Your task to perform on an android device: uninstall "Gboard" Image 0: 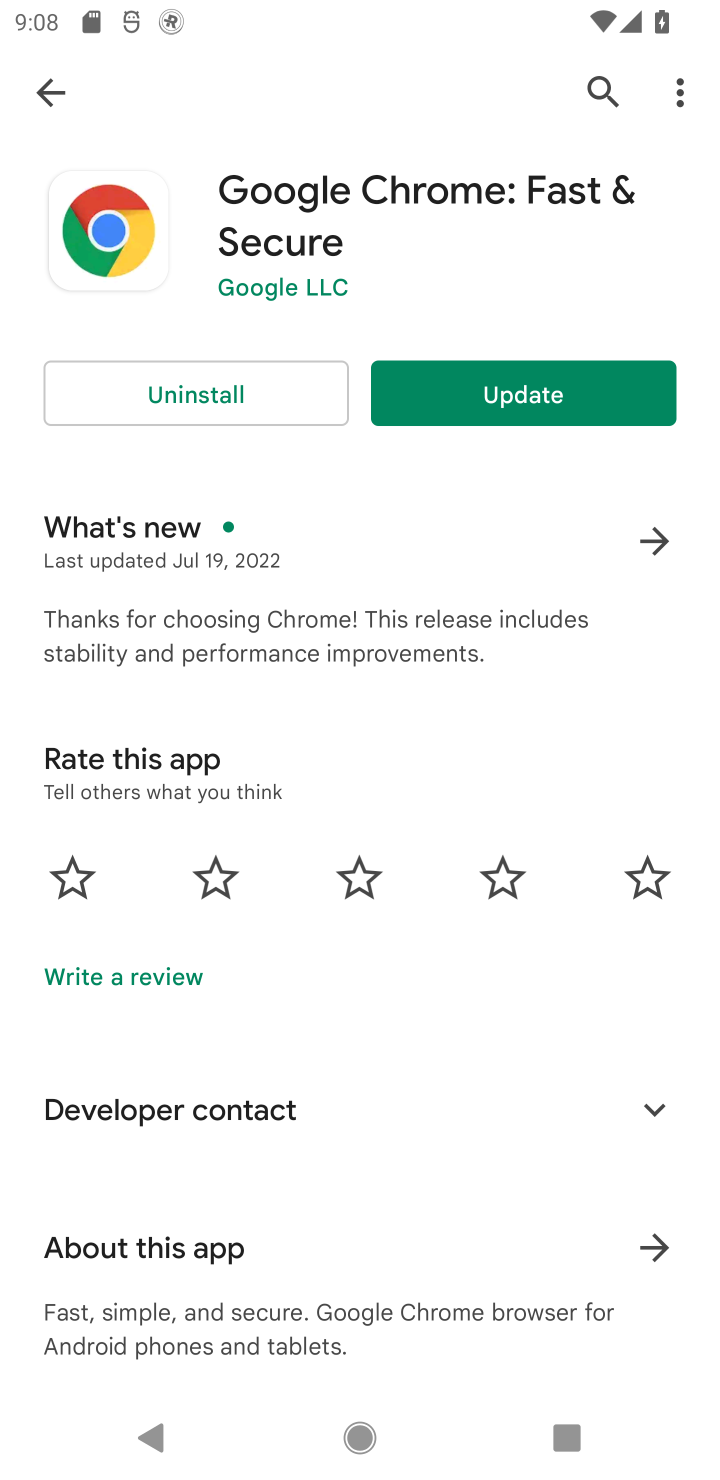
Step 0: click (586, 88)
Your task to perform on an android device: uninstall "Gboard" Image 1: 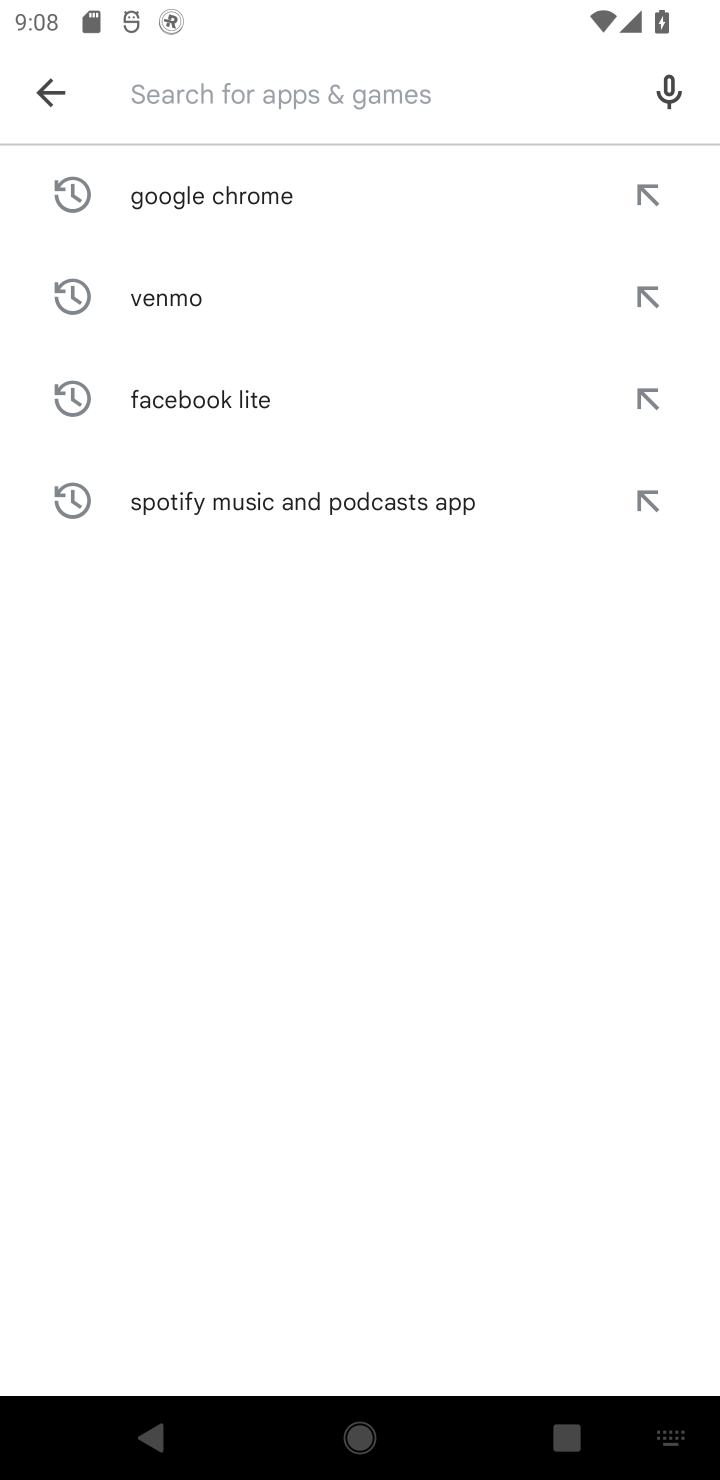
Step 1: type "Gboard"
Your task to perform on an android device: uninstall "Gboard" Image 2: 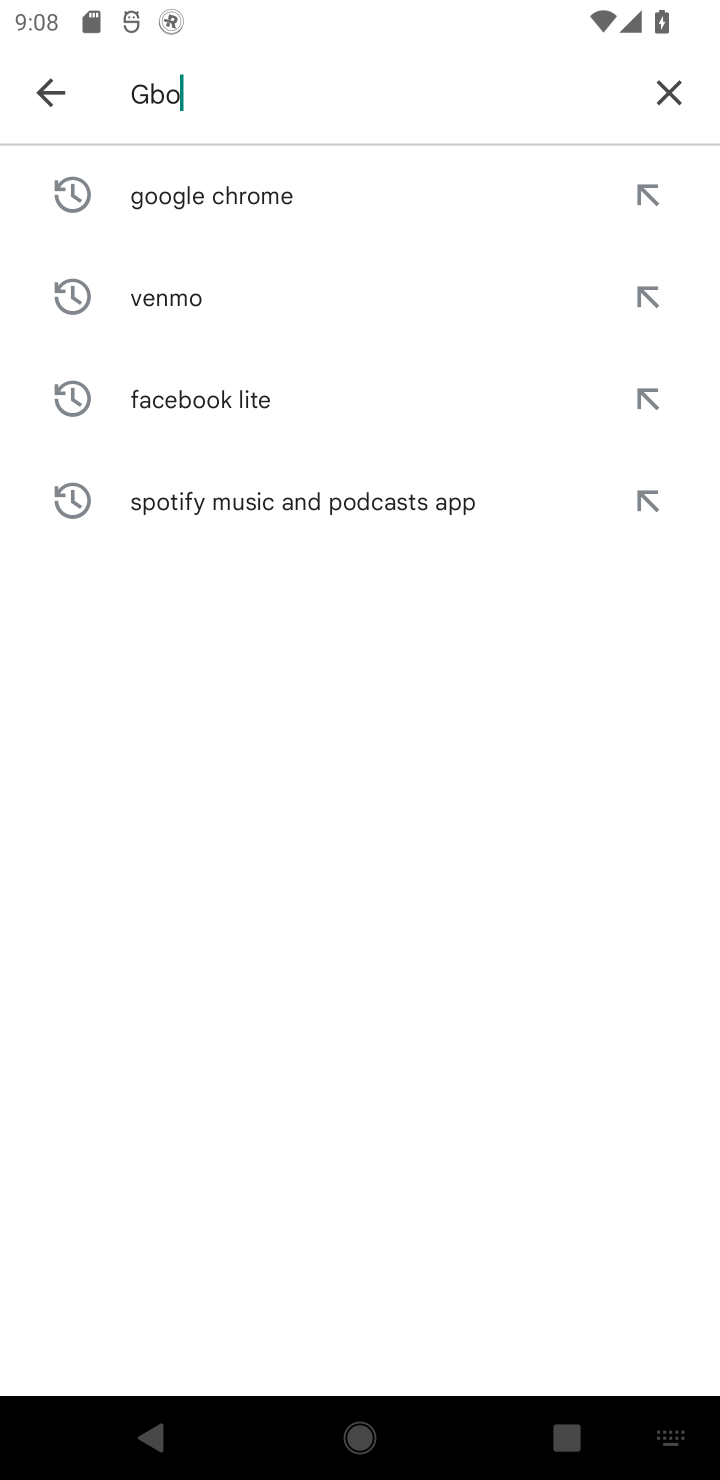
Step 2: type ""
Your task to perform on an android device: uninstall "Gboard" Image 3: 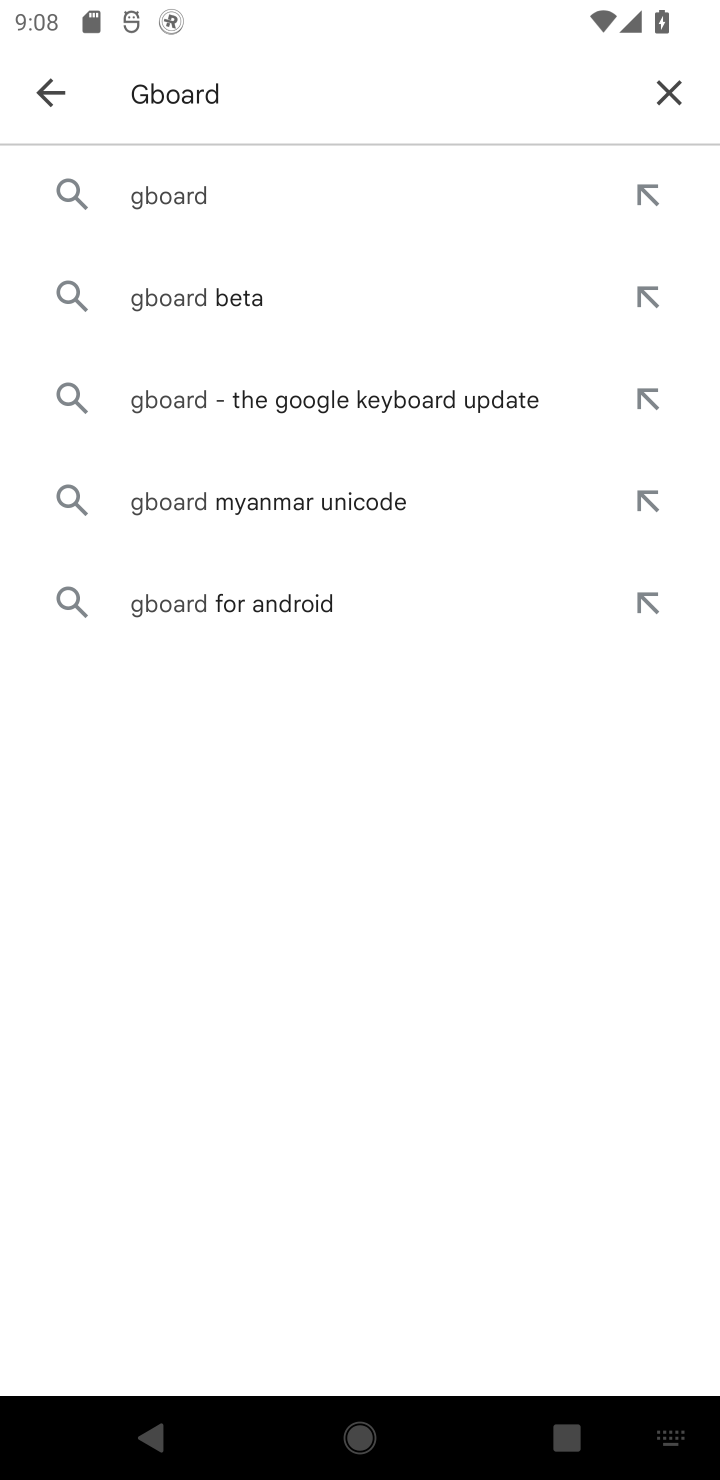
Step 3: click (220, 192)
Your task to perform on an android device: uninstall "Gboard" Image 4: 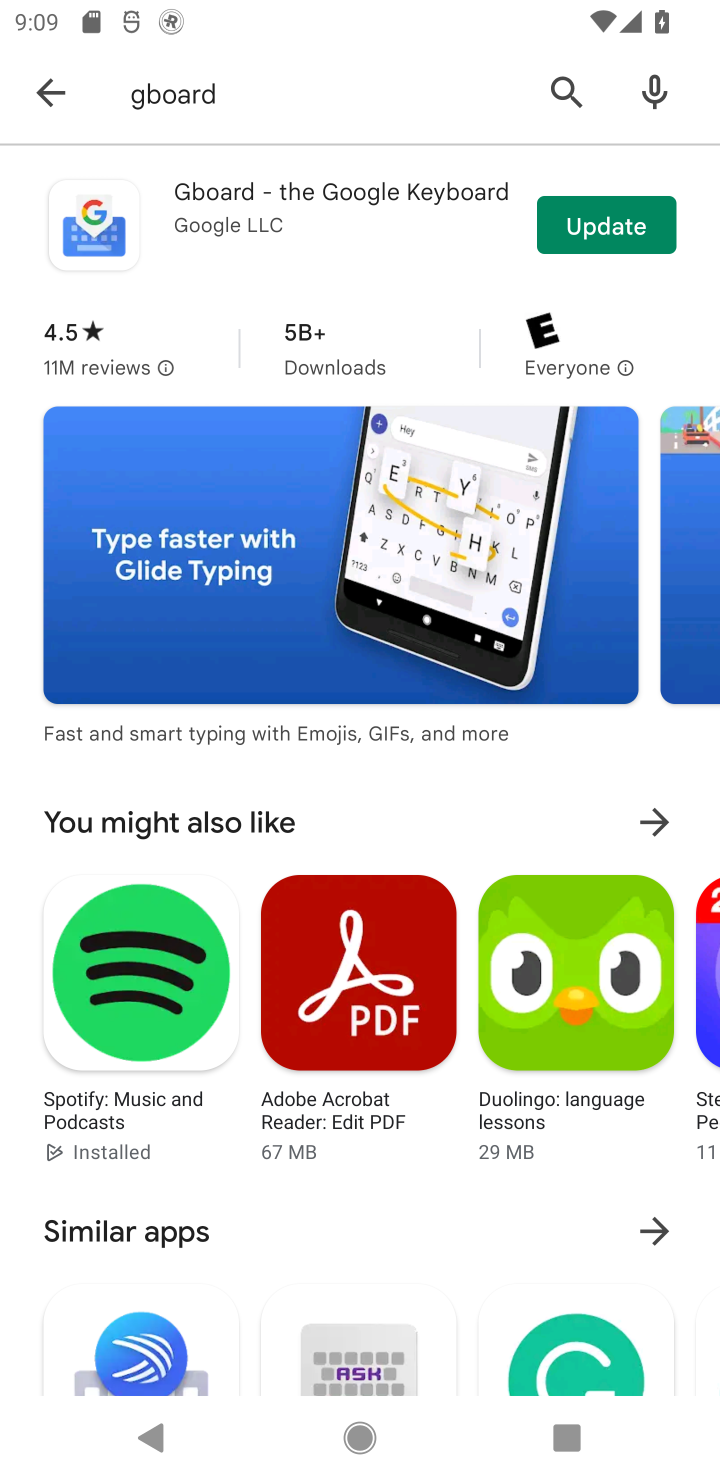
Step 4: click (306, 194)
Your task to perform on an android device: uninstall "Gboard" Image 5: 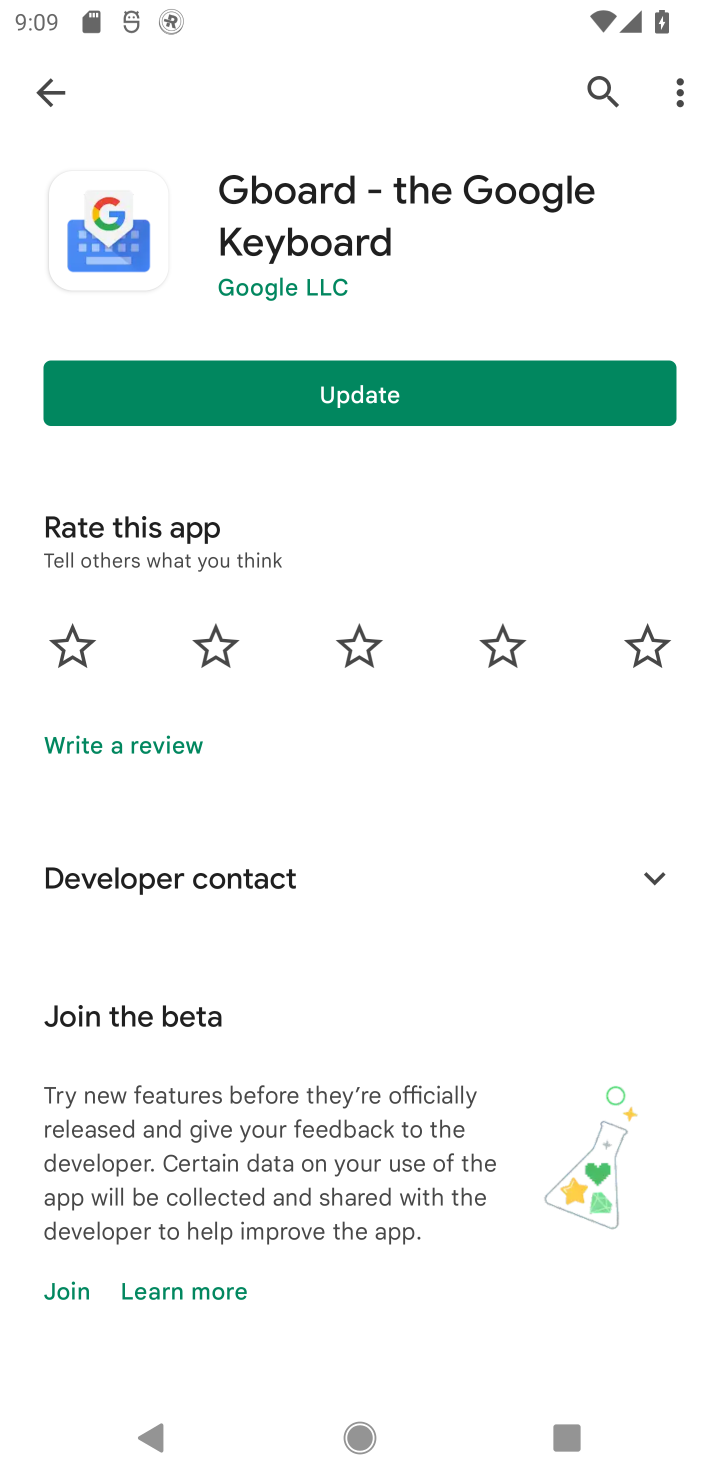
Step 5: click (349, 404)
Your task to perform on an android device: uninstall "Gboard" Image 6: 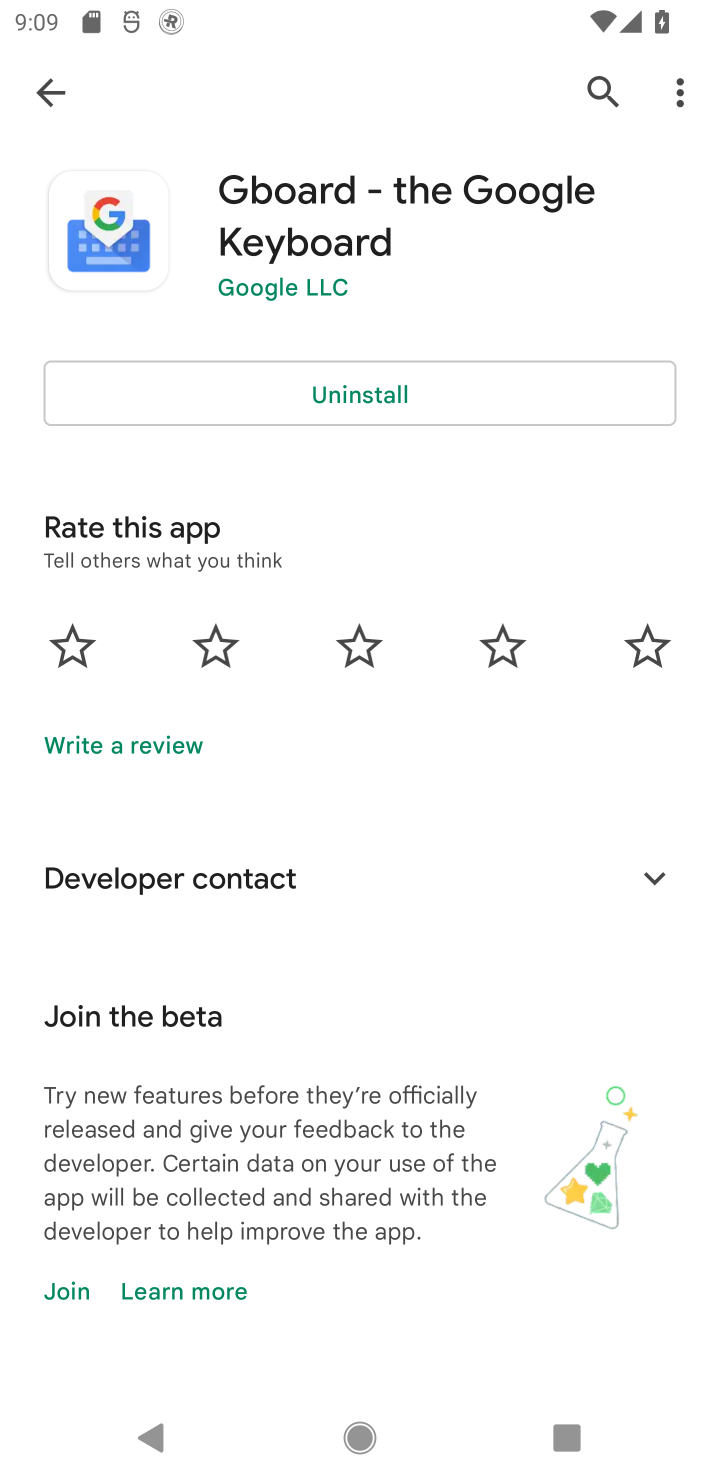
Step 6: click (315, 379)
Your task to perform on an android device: uninstall "Gboard" Image 7: 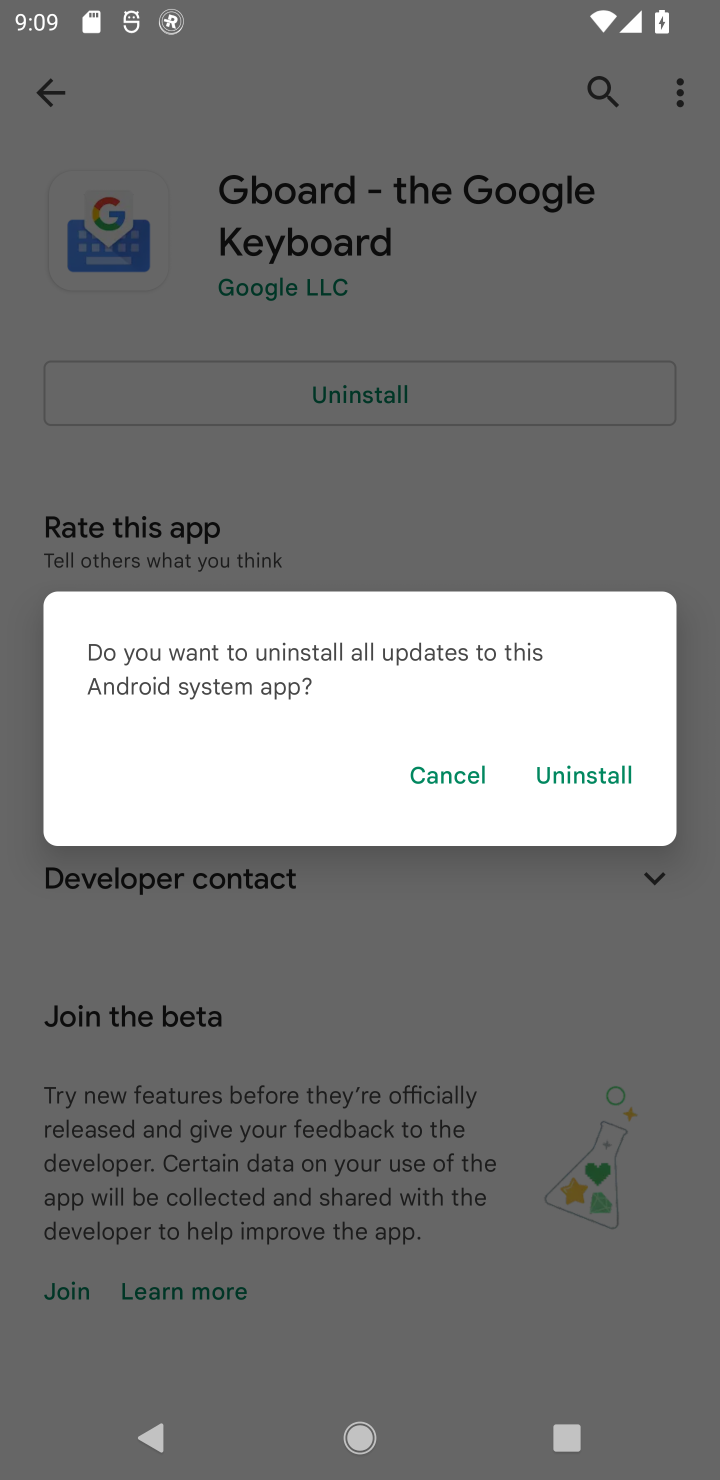
Step 7: click (608, 776)
Your task to perform on an android device: uninstall "Gboard" Image 8: 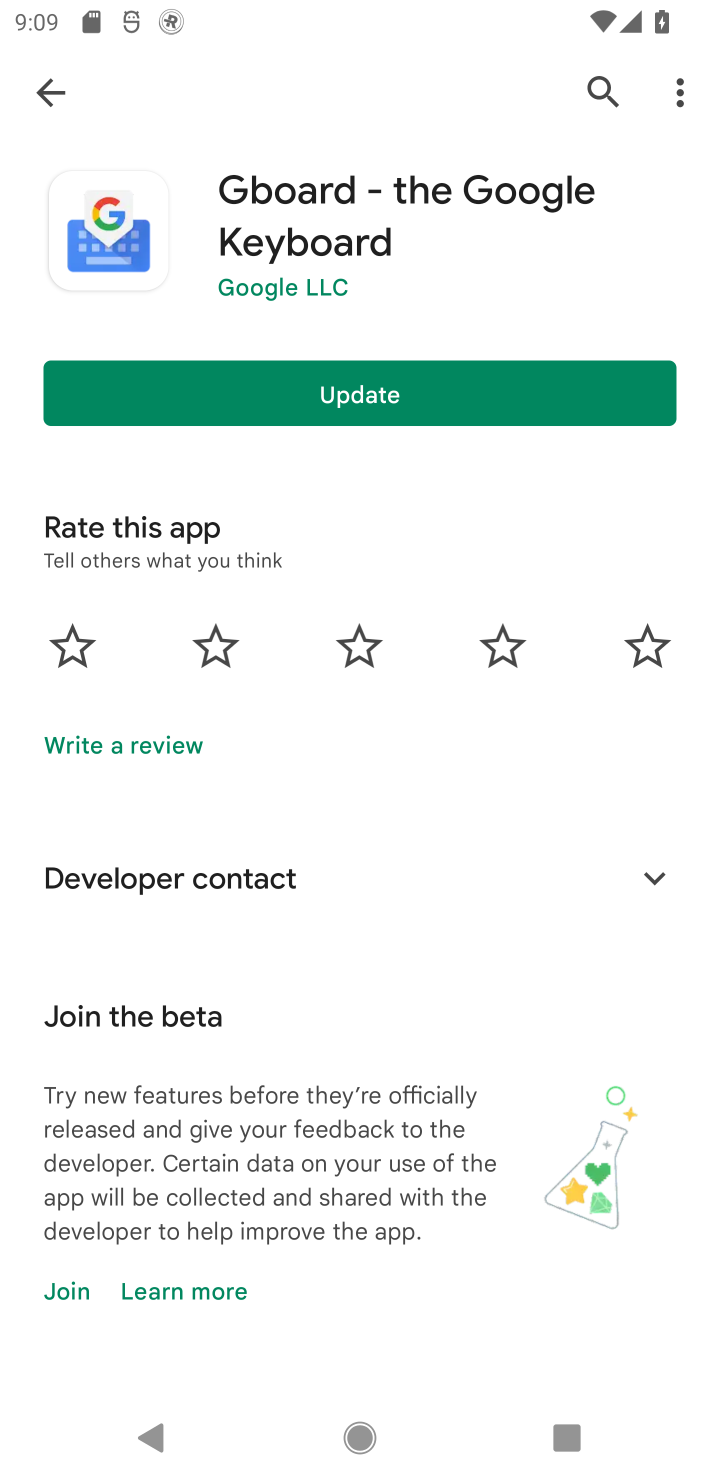
Step 8: task complete